Your task to perform on an android device: What's the weather going to be this weekend? Image 0: 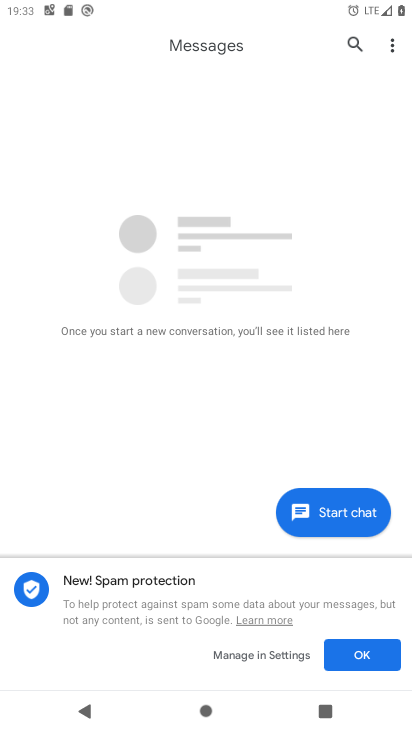
Step 0: press home button
Your task to perform on an android device: What's the weather going to be this weekend? Image 1: 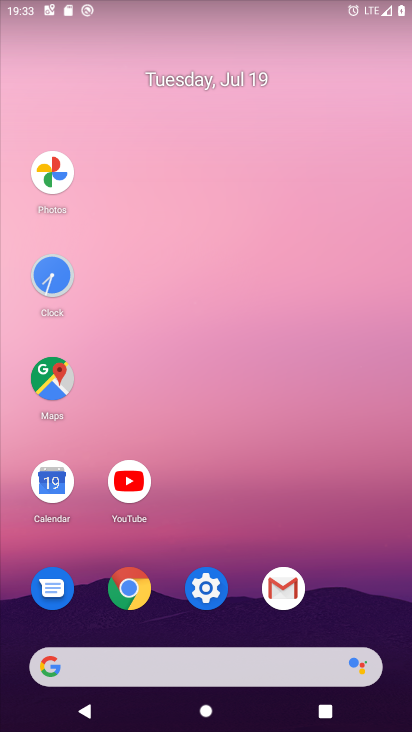
Step 1: click (206, 657)
Your task to perform on an android device: What's the weather going to be this weekend? Image 2: 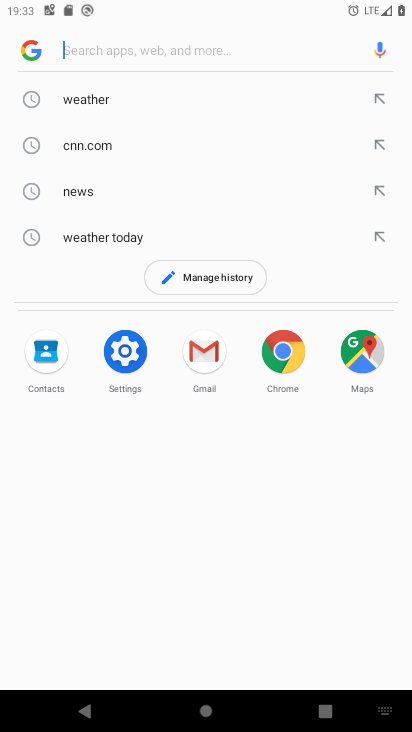
Step 2: click (87, 89)
Your task to perform on an android device: What's the weather going to be this weekend? Image 3: 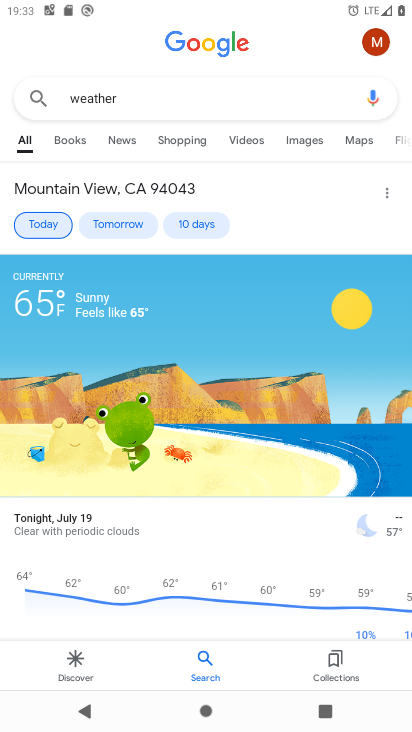
Step 3: click (194, 227)
Your task to perform on an android device: What's the weather going to be this weekend? Image 4: 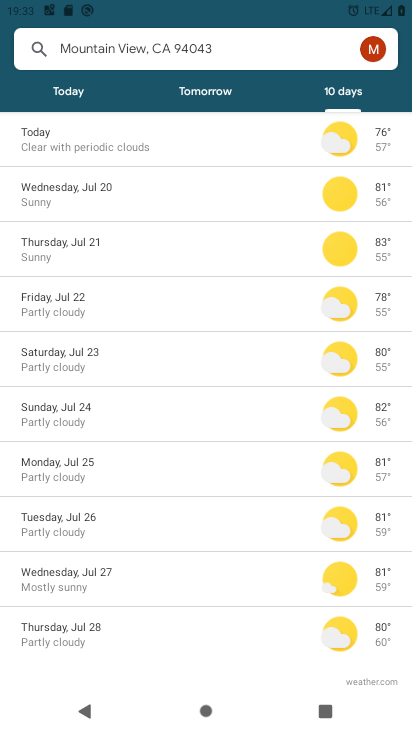
Step 4: task complete